Your task to perform on an android device: Open the calendar and show me this week's events Image 0: 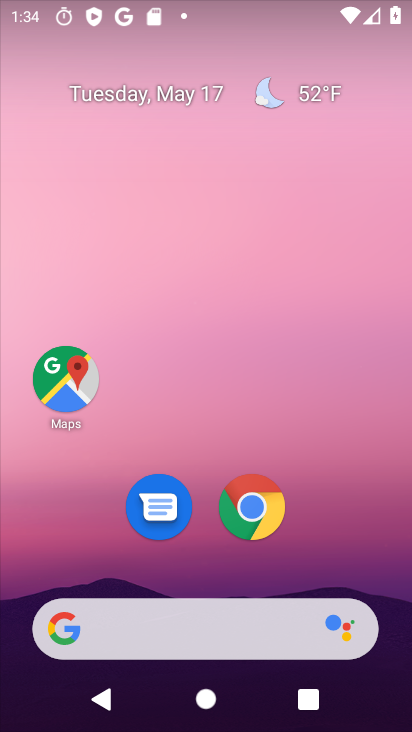
Step 0: drag from (191, 544) to (201, 76)
Your task to perform on an android device: Open the calendar and show me this week's events Image 1: 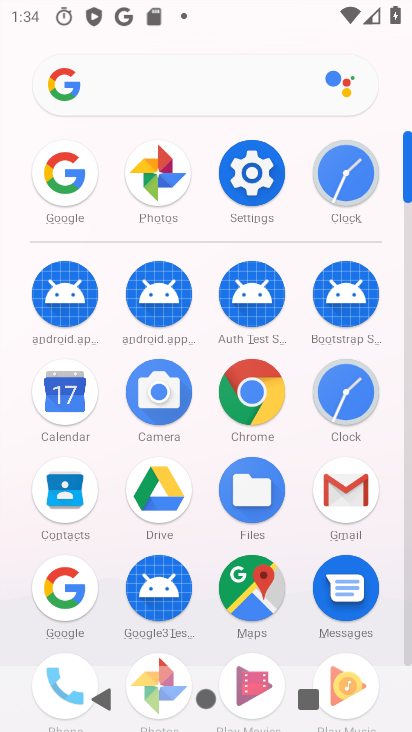
Step 1: click (57, 393)
Your task to perform on an android device: Open the calendar and show me this week's events Image 2: 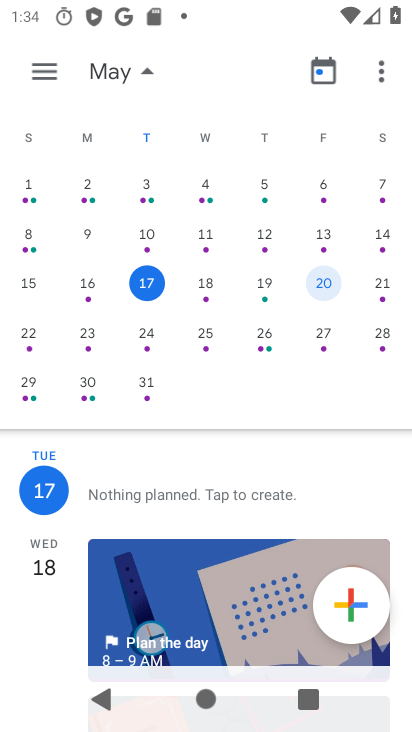
Step 2: click (274, 287)
Your task to perform on an android device: Open the calendar and show me this week's events Image 3: 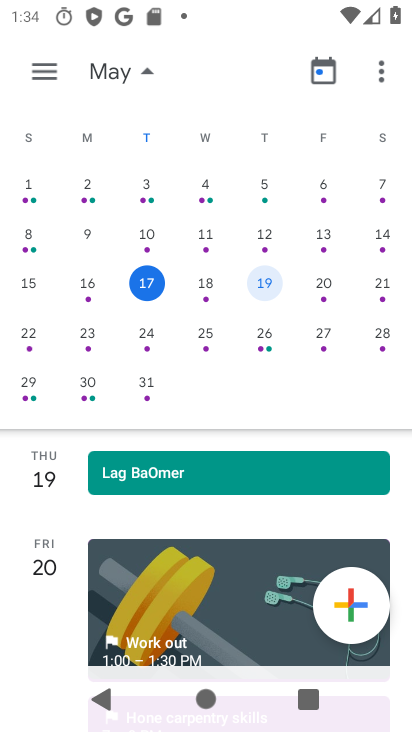
Step 3: task complete